Your task to perform on an android device: toggle sleep mode Image 0: 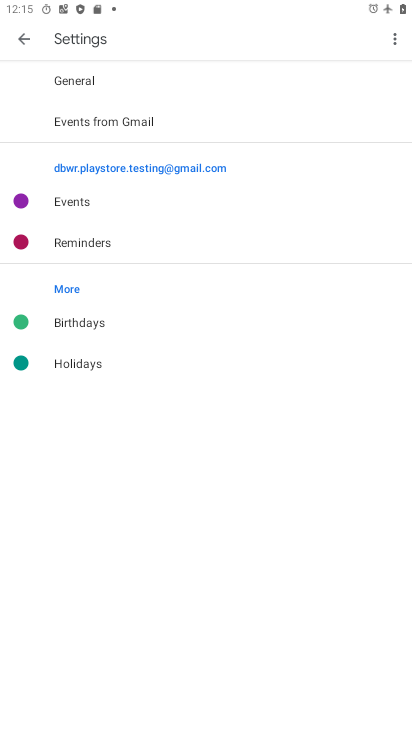
Step 0: press home button
Your task to perform on an android device: toggle sleep mode Image 1: 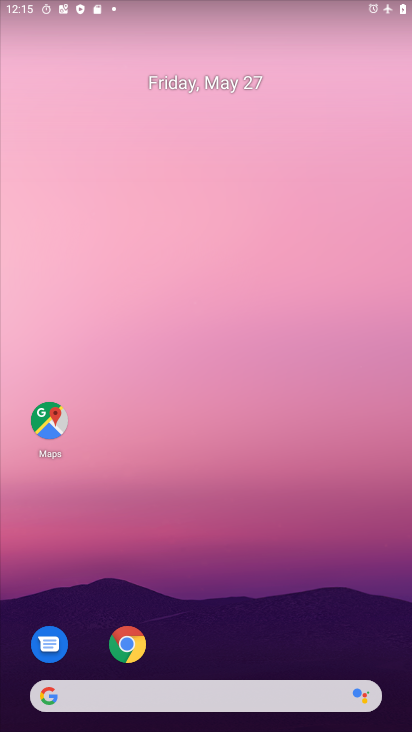
Step 1: drag from (233, 627) to (208, 279)
Your task to perform on an android device: toggle sleep mode Image 2: 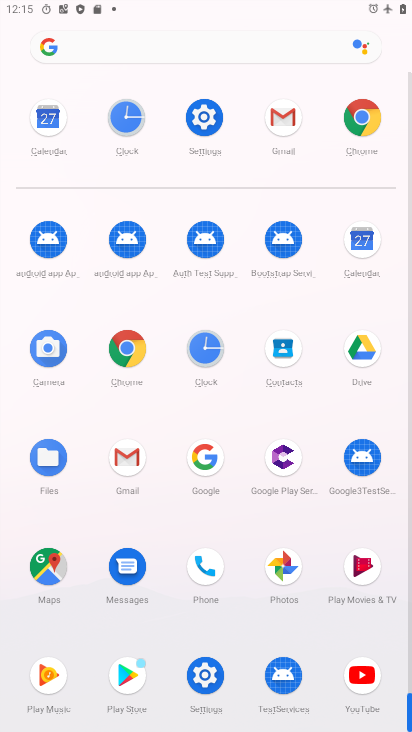
Step 2: click (197, 121)
Your task to perform on an android device: toggle sleep mode Image 3: 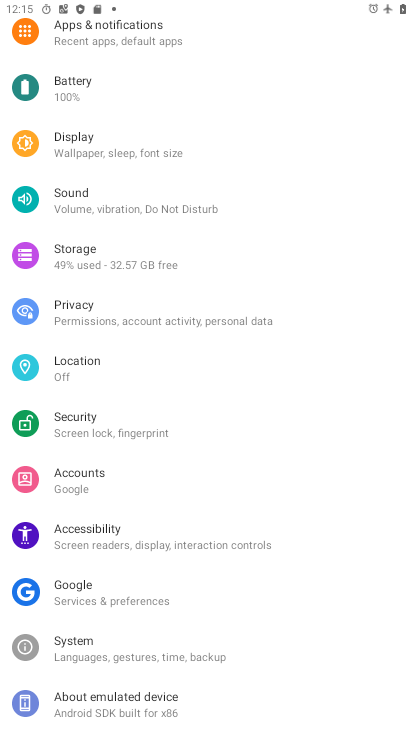
Step 3: drag from (206, 164) to (186, 516)
Your task to perform on an android device: toggle sleep mode Image 4: 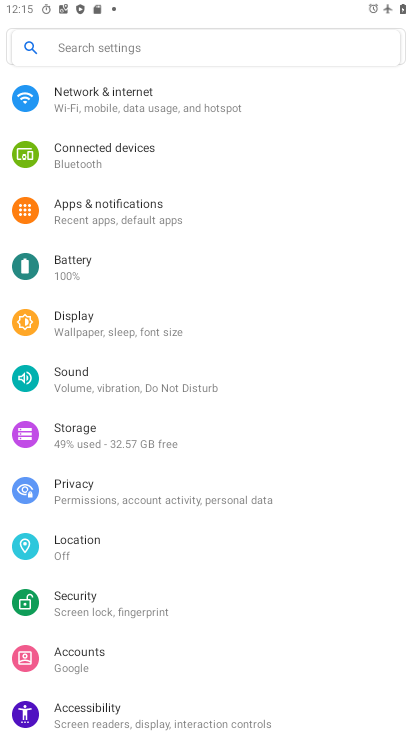
Step 4: drag from (167, 193) to (173, 512)
Your task to perform on an android device: toggle sleep mode Image 5: 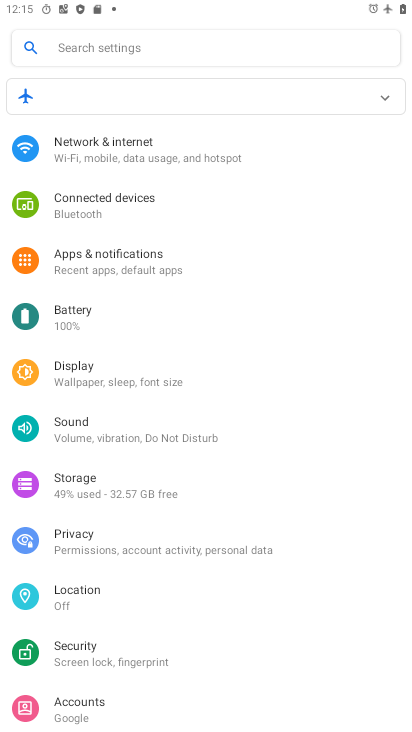
Step 5: click (125, 355)
Your task to perform on an android device: toggle sleep mode Image 6: 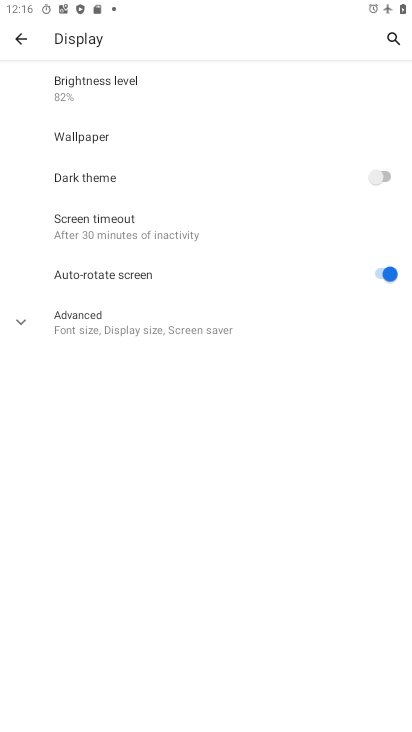
Step 6: click (180, 209)
Your task to perform on an android device: toggle sleep mode Image 7: 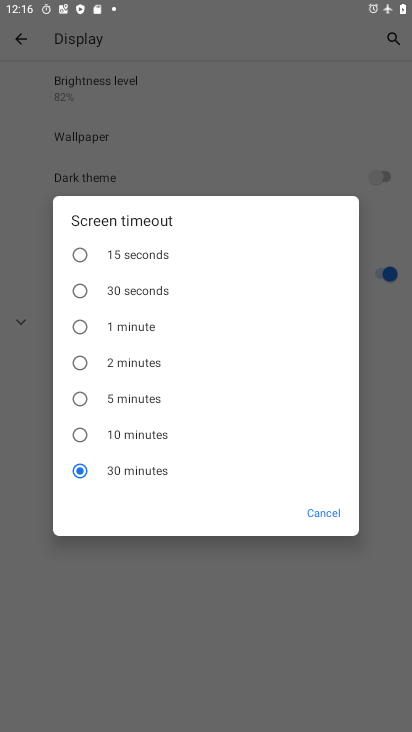
Step 7: click (157, 322)
Your task to perform on an android device: toggle sleep mode Image 8: 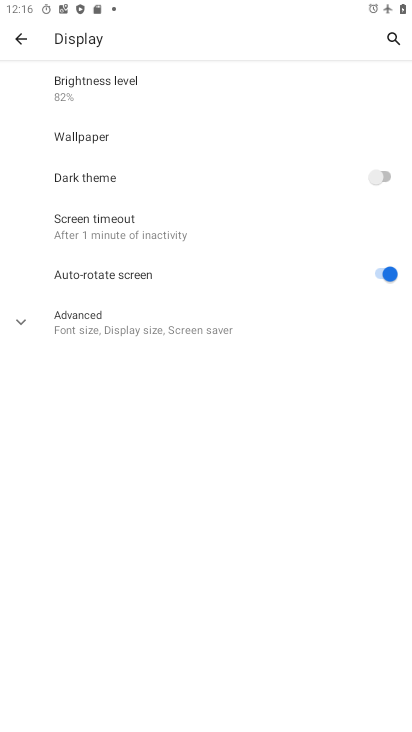
Step 8: task complete